Your task to perform on an android device: see tabs open on other devices in the chrome app Image 0: 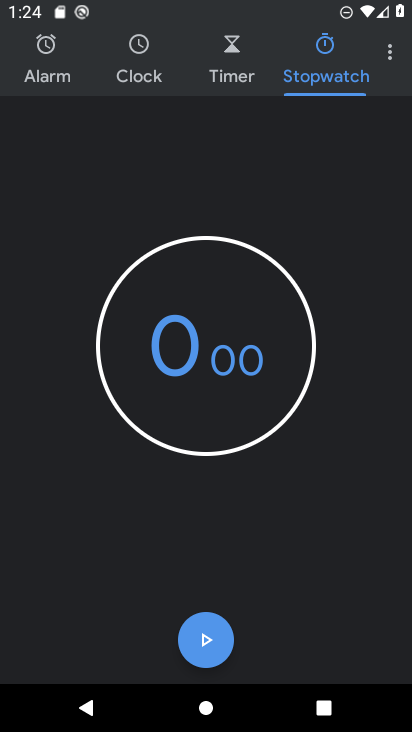
Step 0: press home button
Your task to perform on an android device: see tabs open on other devices in the chrome app Image 1: 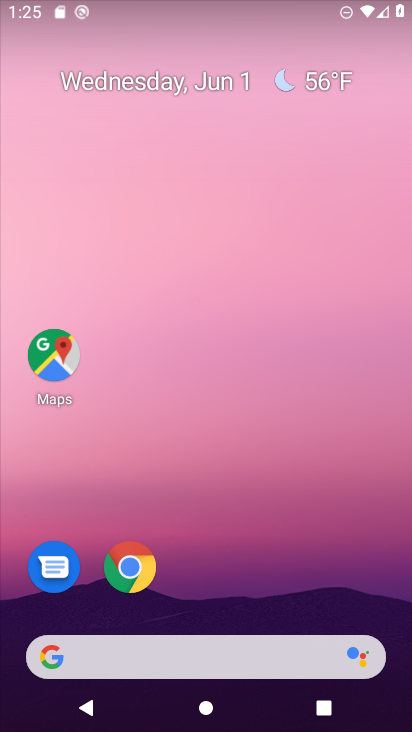
Step 1: drag from (220, 642) to (190, 92)
Your task to perform on an android device: see tabs open on other devices in the chrome app Image 2: 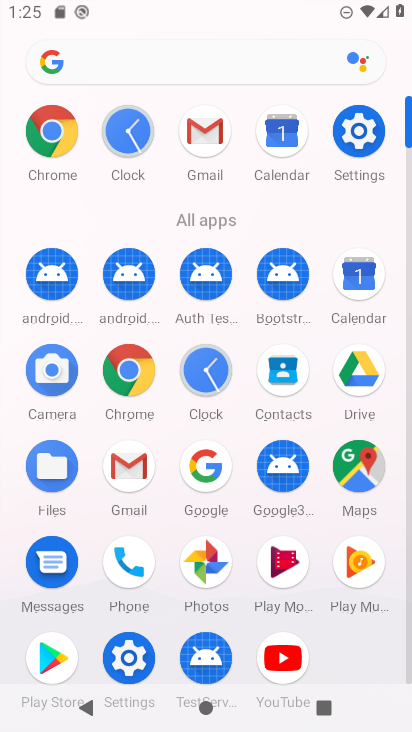
Step 2: click (121, 381)
Your task to perform on an android device: see tabs open on other devices in the chrome app Image 3: 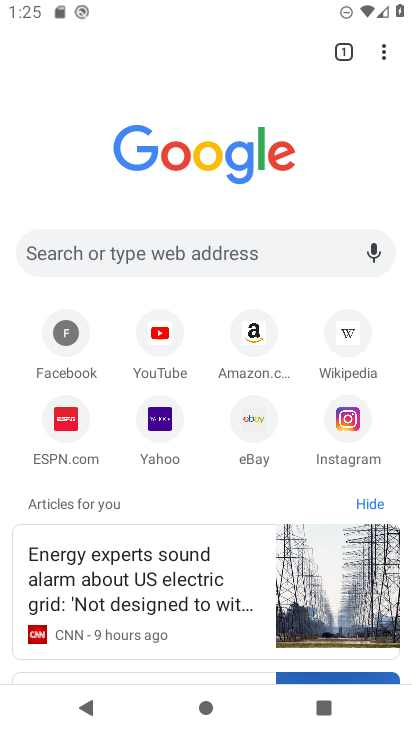
Step 3: task complete